Your task to perform on an android device: Open my contact list Image 0: 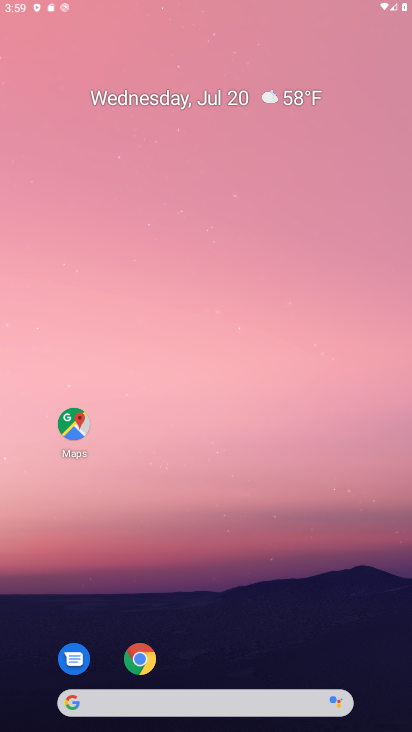
Step 0: press back button
Your task to perform on an android device: Open my contact list Image 1: 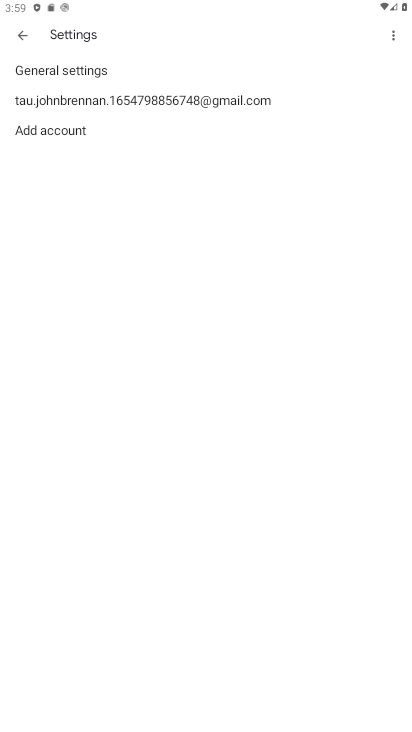
Step 1: press back button
Your task to perform on an android device: Open my contact list Image 2: 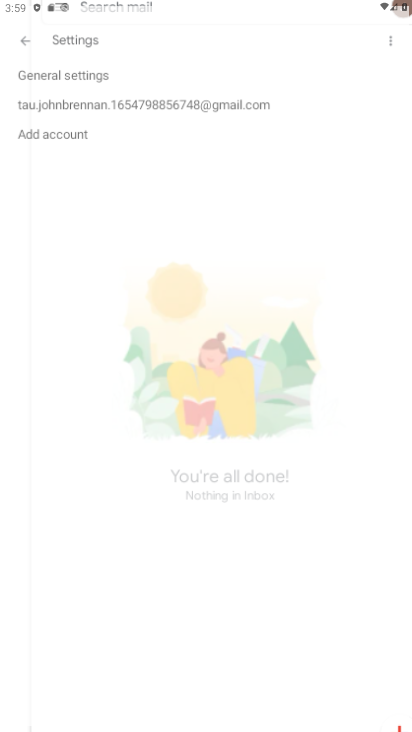
Step 2: click (199, 74)
Your task to perform on an android device: Open my contact list Image 3: 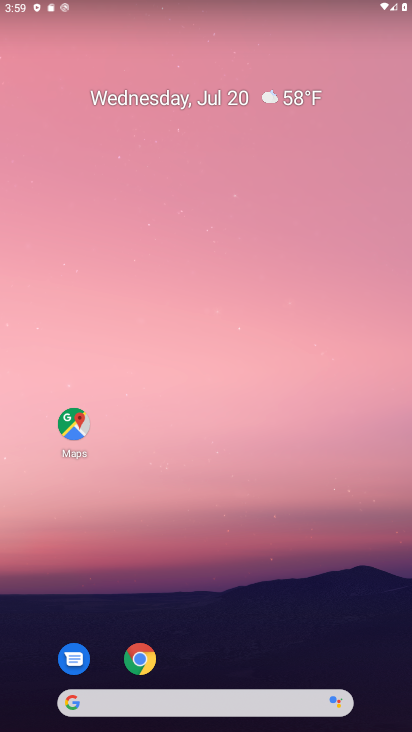
Step 3: drag from (217, 632) to (228, 89)
Your task to perform on an android device: Open my contact list Image 4: 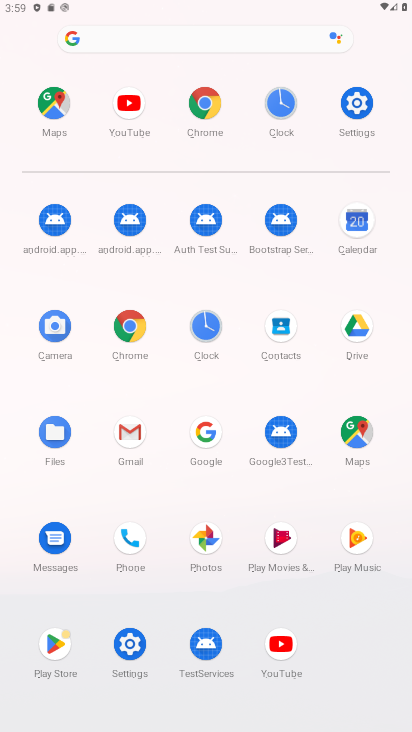
Step 4: click (283, 340)
Your task to perform on an android device: Open my contact list Image 5: 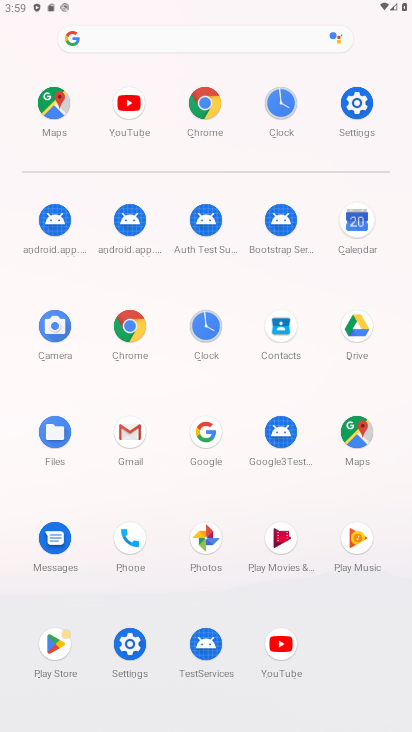
Step 5: click (284, 338)
Your task to perform on an android device: Open my contact list Image 6: 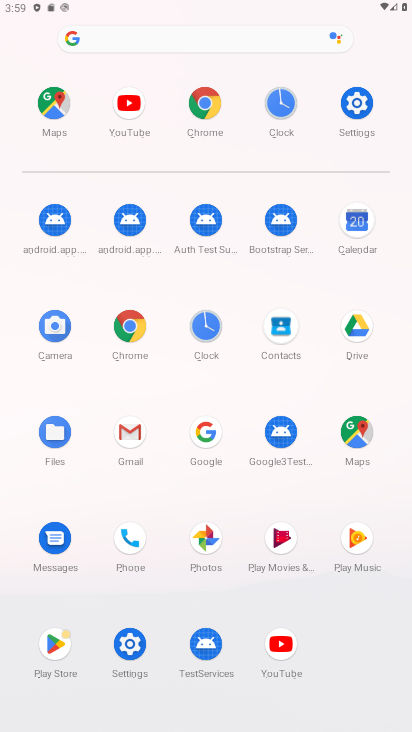
Step 6: click (285, 336)
Your task to perform on an android device: Open my contact list Image 7: 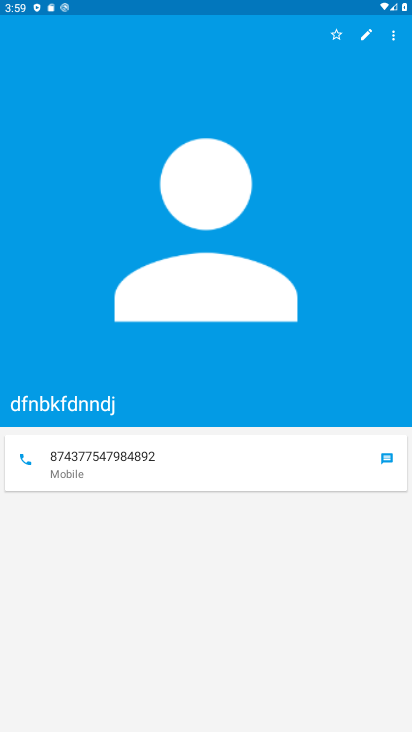
Step 7: click (397, 33)
Your task to perform on an android device: Open my contact list Image 8: 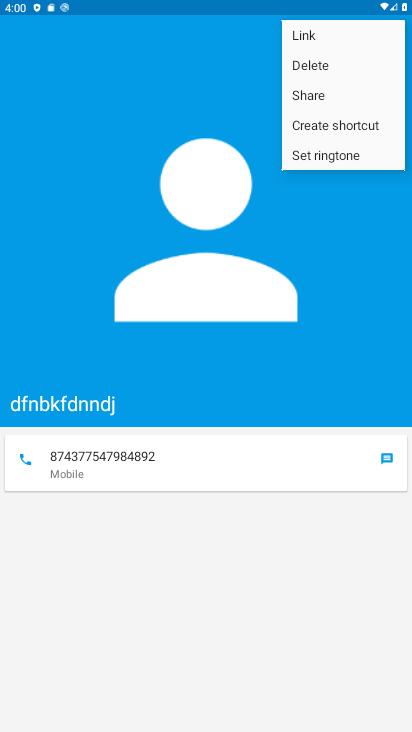
Step 8: click (150, 122)
Your task to perform on an android device: Open my contact list Image 9: 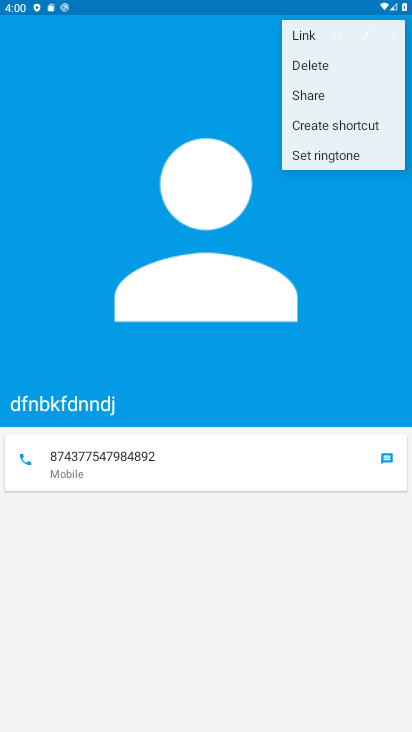
Step 9: click (150, 123)
Your task to perform on an android device: Open my contact list Image 10: 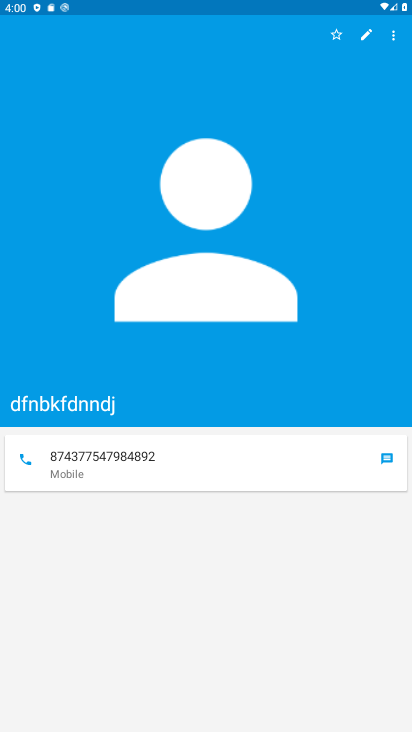
Step 10: drag from (318, 632) to (231, 233)
Your task to perform on an android device: Open my contact list Image 11: 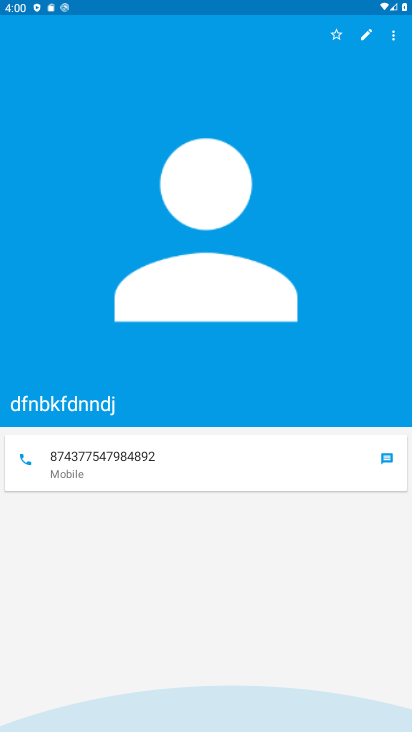
Step 11: drag from (168, 534) to (160, 172)
Your task to perform on an android device: Open my contact list Image 12: 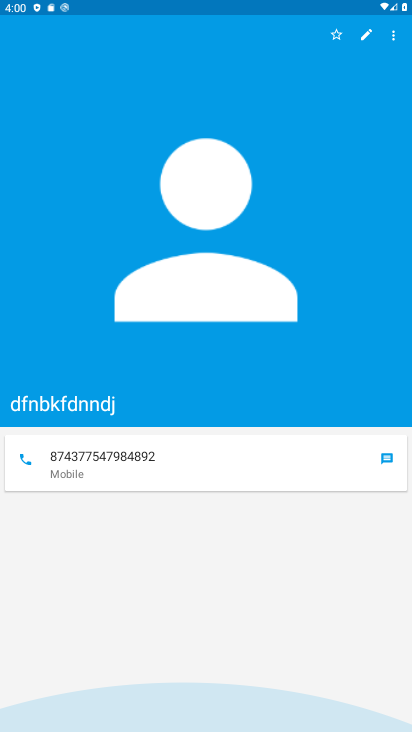
Step 12: drag from (201, 454) to (213, 241)
Your task to perform on an android device: Open my contact list Image 13: 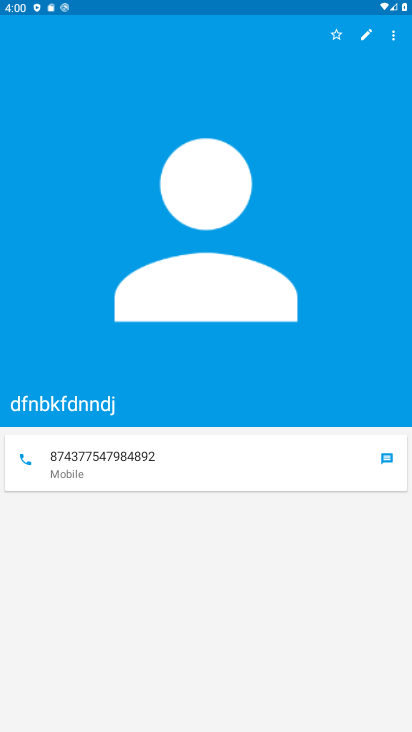
Step 13: click (362, 33)
Your task to perform on an android device: Open my contact list Image 14: 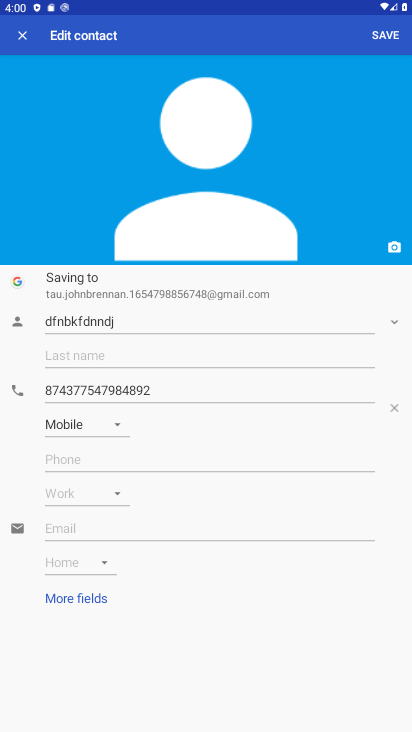
Step 14: click (17, 36)
Your task to perform on an android device: Open my contact list Image 15: 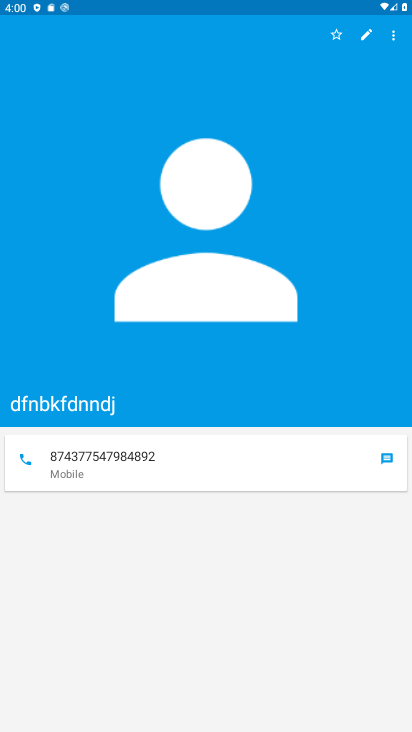
Step 15: click (18, 37)
Your task to perform on an android device: Open my contact list Image 16: 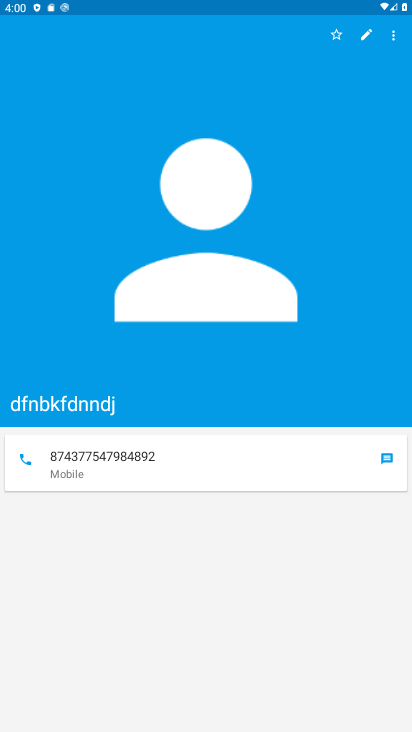
Step 16: click (392, 461)
Your task to perform on an android device: Open my contact list Image 17: 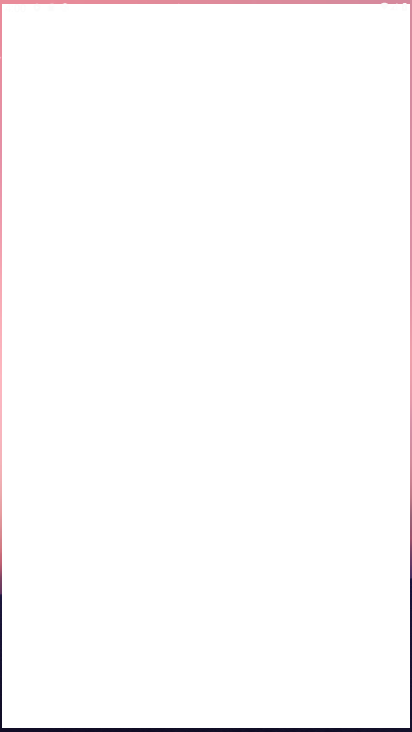
Step 17: click (337, 43)
Your task to perform on an android device: Open my contact list Image 18: 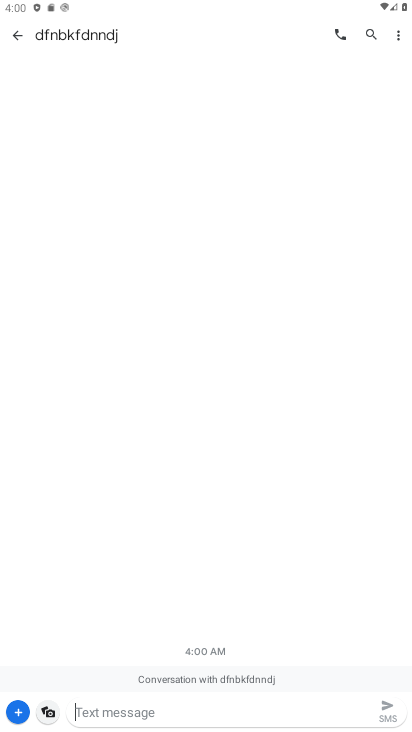
Step 18: task complete